Your task to perform on an android device: Open network settings Image 0: 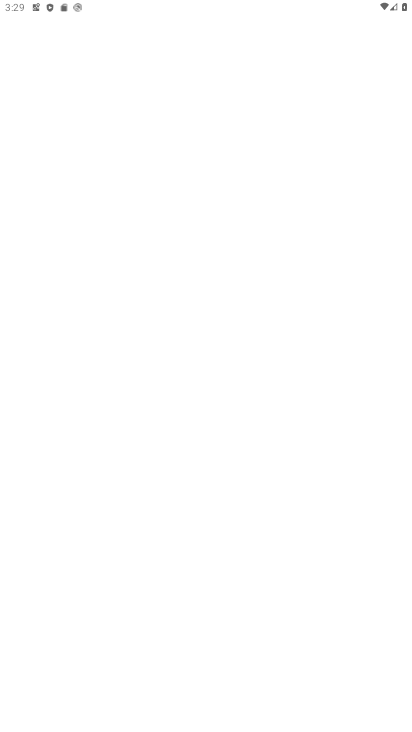
Step 0: press home button
Your task to perform on an android device: Open network settings Image 1: 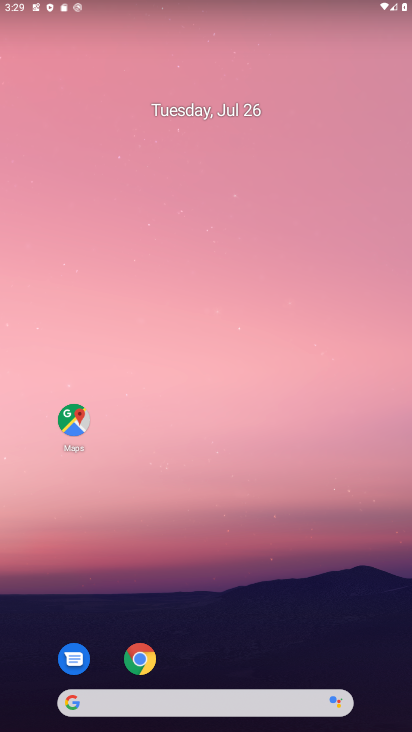
Step 1: drag from (216, 635) to (171, 193)
Your task to perform on an android device: Open network settings Image 2: 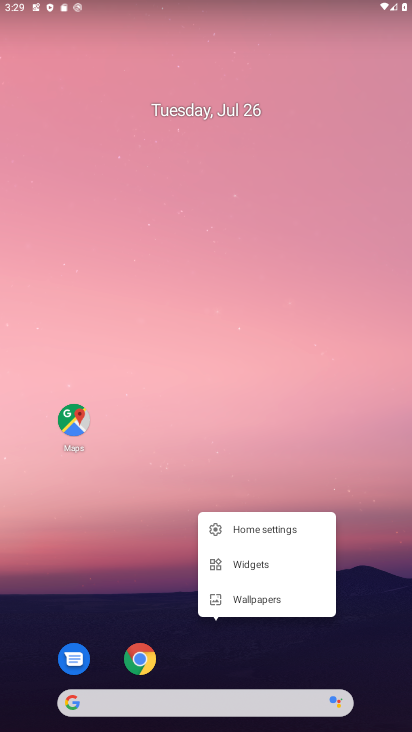
Step 2: click (309, 217)
Your task to perform on an android device: Open network settings Image 3: 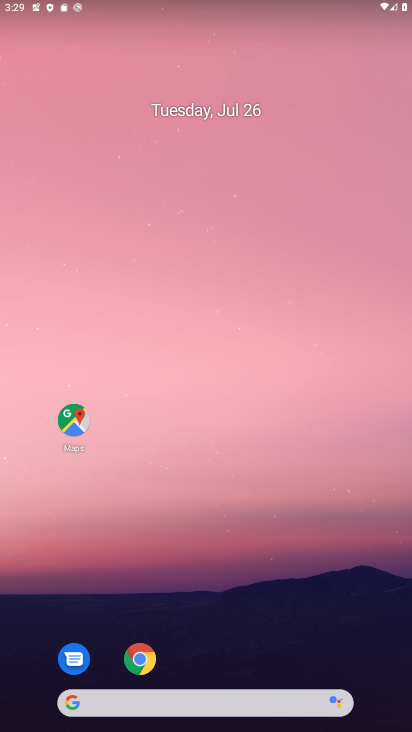
Step 3: drag from (269, 678) to (311, 4)
Your task to perform on an android device: Open network settings Image 4: 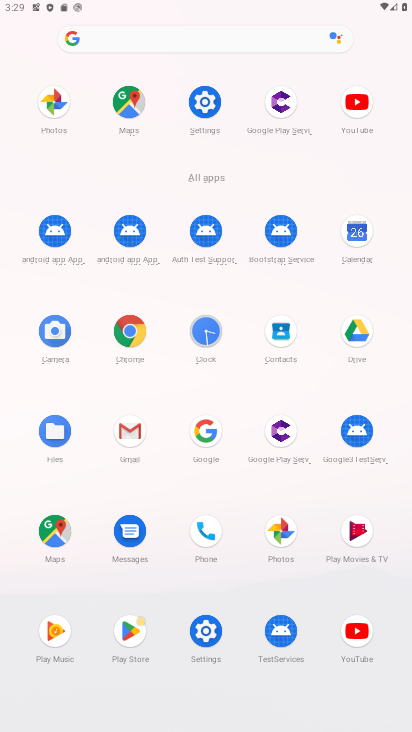
Step 4: click (195, 94)
Your task to perform on an android device: Open network settings Image 5: 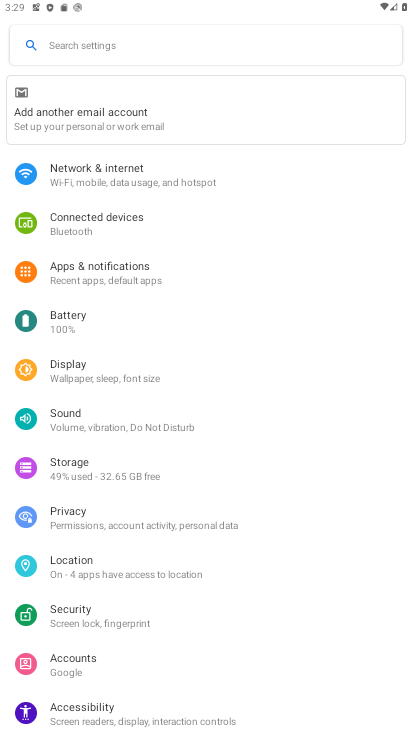
Step 5: click (137, 168)
Your task to perform on an android device: Open network settings Image 6: 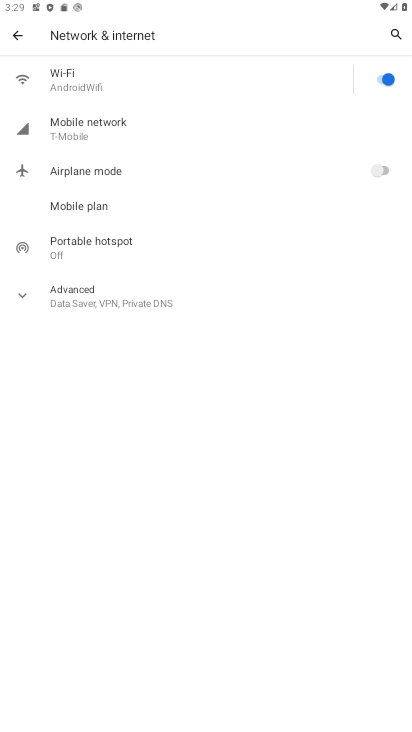
Step 6: click (166, 121)
Your task to perform on an android device: Open network settings Image 7: 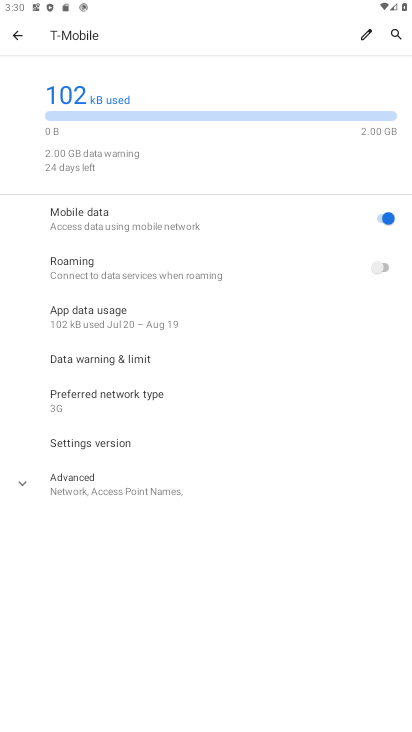
Step 7: task complete